Your task to perform on an android device: Go to Maps Image 0: 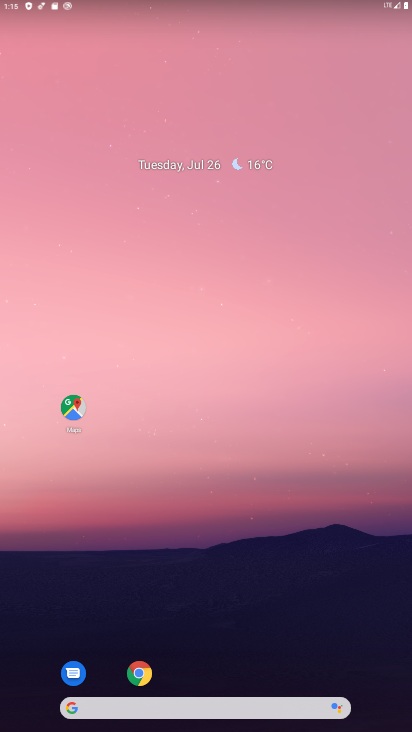
Step 0: click (138, 677)
Your task to perform on an android device: Go to Maps Image 1: 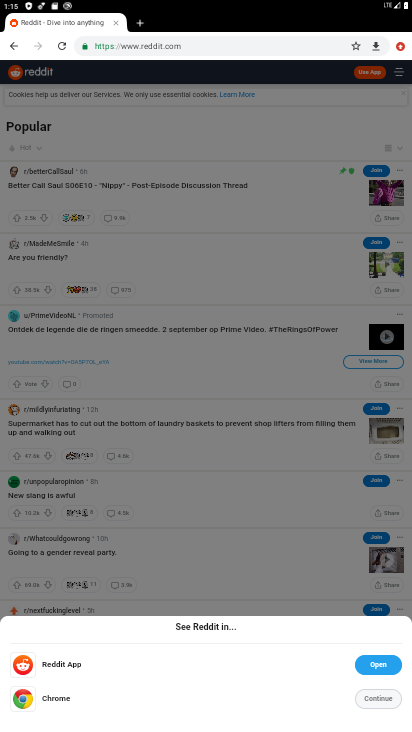
Step 1: click (401, 47)
Your task to perform on an android device: Go to Maps Image 2: 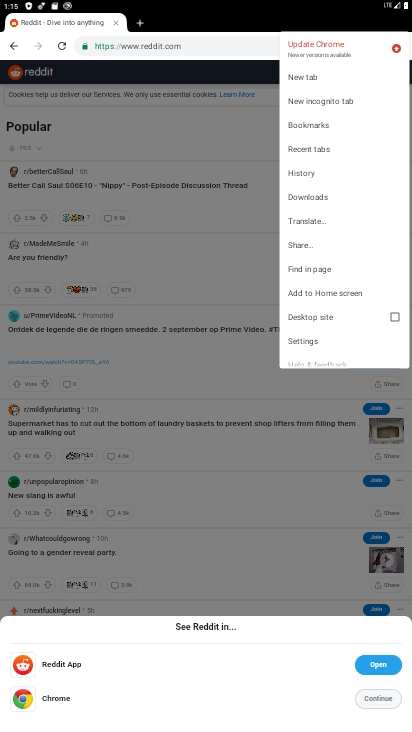
Step 2: click (307, 75)
Your task to perform on an android device: Go to Maps Image 3: 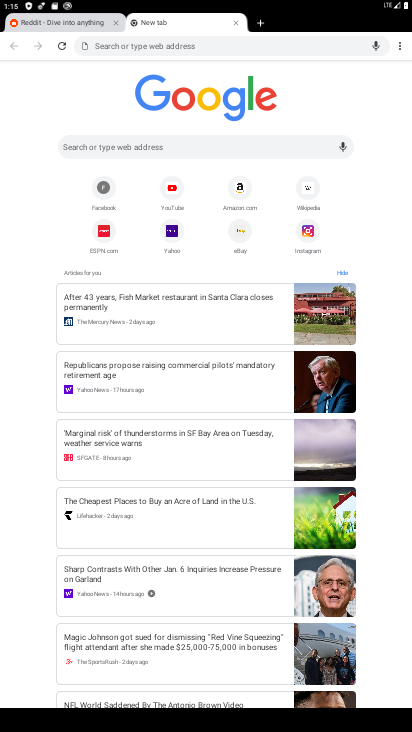
Step 3: press home button
Your task to perform on an android device: Go to Maps Image 4: 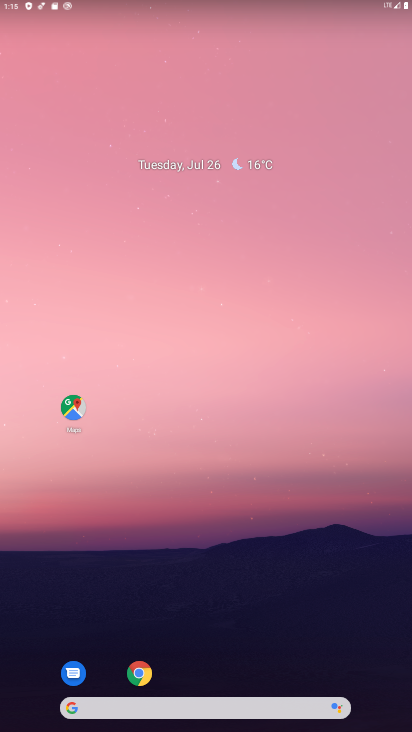
Step 4: drag from (155, 650) to (148, 105)
Your task to perform on an android device: Go to Maps Image 5: 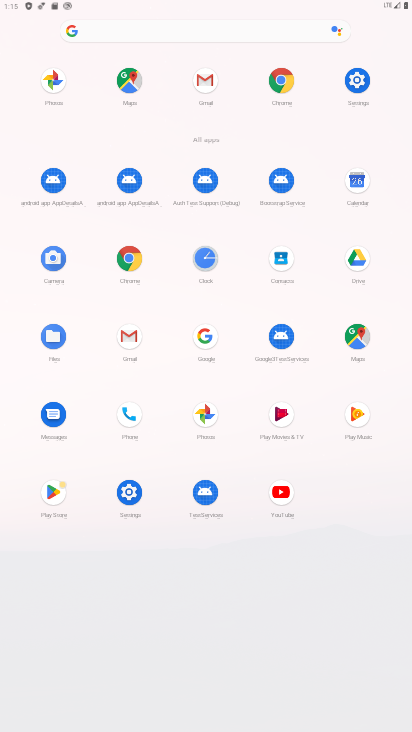
Step 5: click (357, 338)
Your task to perform on an android device: Go to Maps Image 6: 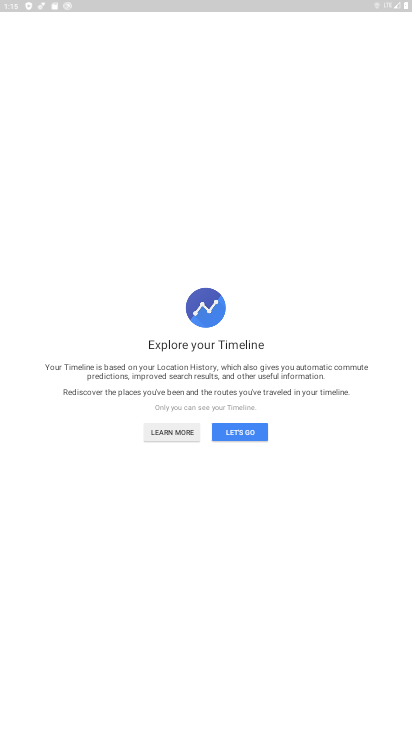
Step 6: click (235, 433)
Your task to perform on an android device: Go to Maps Image 7: 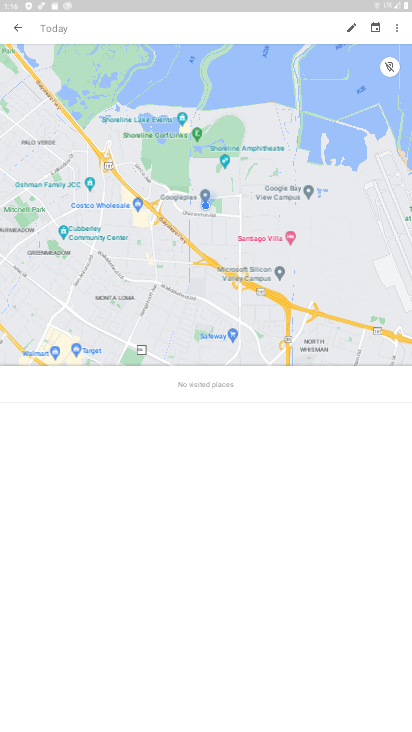
Step 7: task complete